Your task to perform on an android device: turn on showing notifications on the lock screen Image 0: 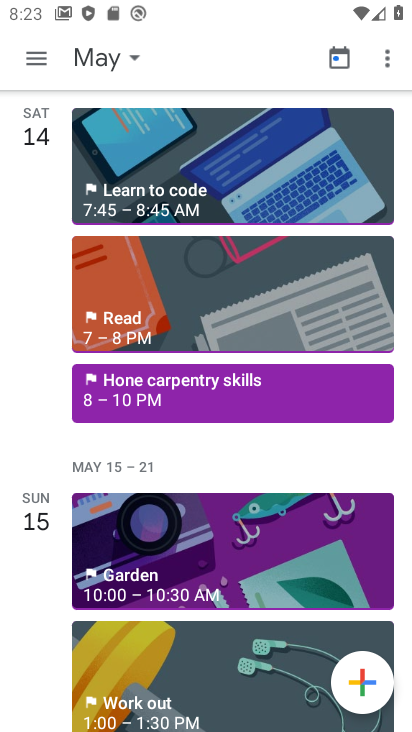
Step 0: press home button
Your task to perform on an android device: turn on showing notifications on the lock screen Image 1: 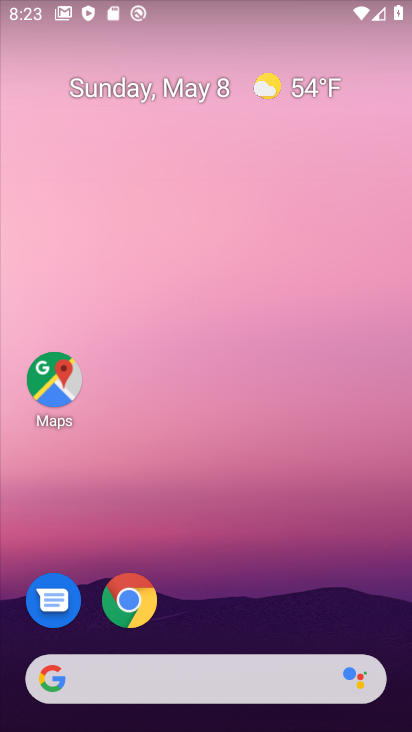
Step 1: drag from (219, 624) to (236, 107)
Your task to perform on an android device: turn on showing notifications on the lock screen Image 2: 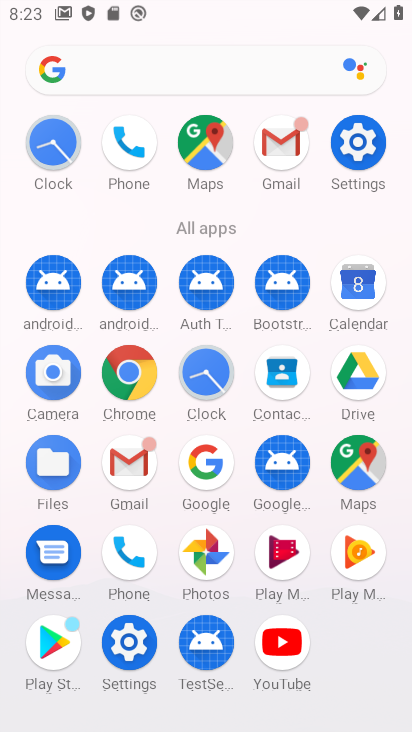
Step 2: click (377, 132)
Your task to perform on an android device: turn on showing notifications on the lock screen Image 3: 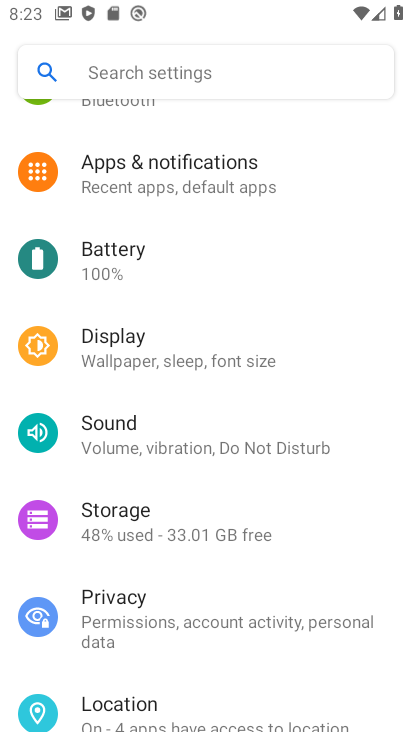
Step 3: click (202, 181)
Your task to perform on an android device: turn on showing notifications on the lock screen Image 4: 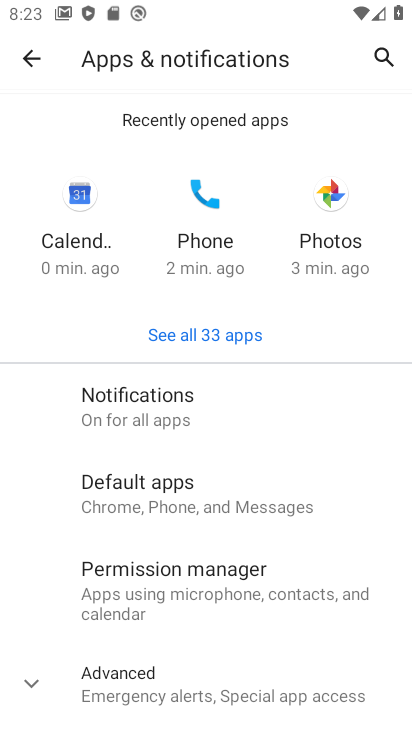
Step 4: drag from (215, 647) to (305, 99)
Your task to perform on an android device: turn on showing notifications on the lock screen Image 5: 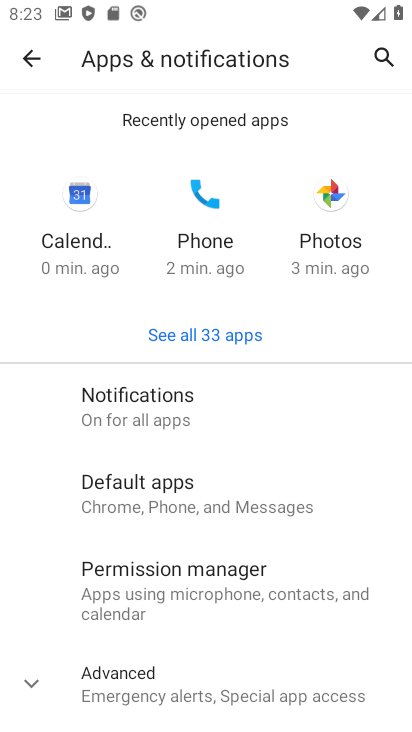
Step 5: click (176, 436)
Your task to perform on an android device: turn on showing notifications on the lock screen Image 6: 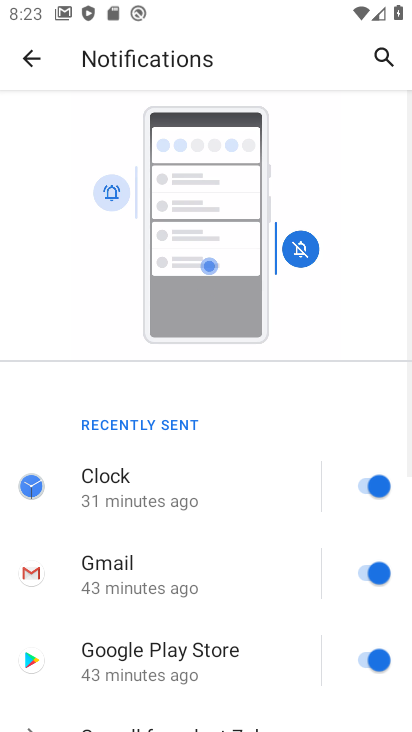
Step 6: drag from (65, 553) to (288, 73)
Your task to perform on an android device: turn on showing notifications on the lock screen Image 7: 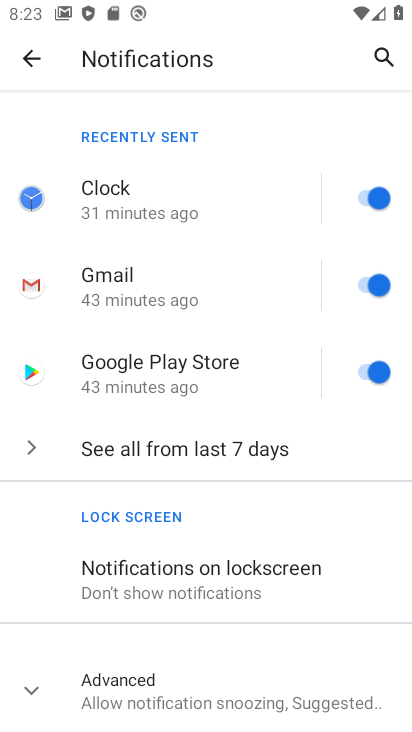
Step 7: click (223, 592)
Your task to perform on an android device: turn on showing notifications on the lock screen Image 8: 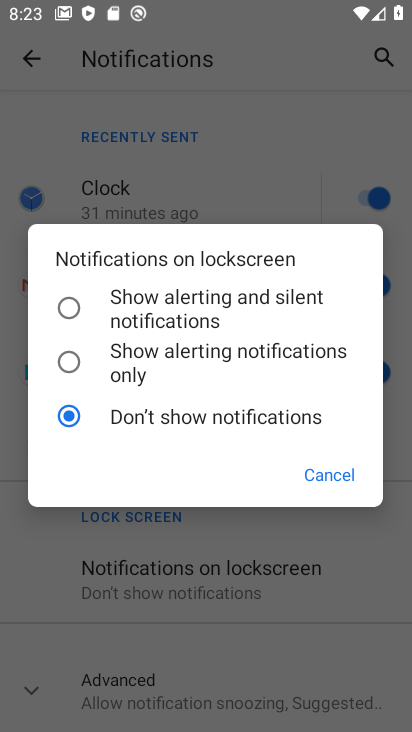
Step 8: click (160, 333)
Your task to perform on an android device: turn on showing notifications on the lock screen Image 9: 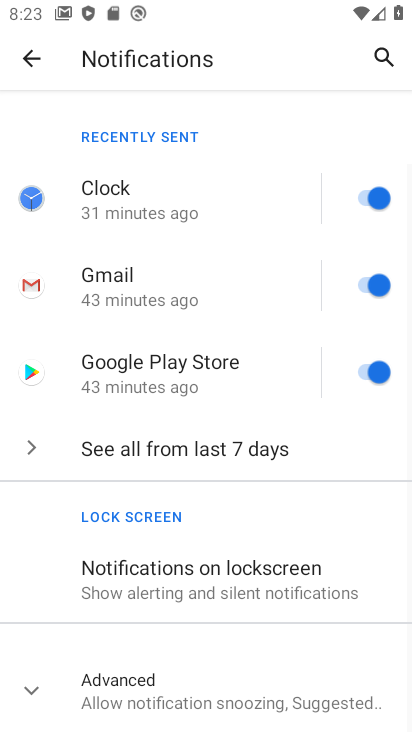
Step 9: task complete